Your task to perform on an android device: change timer sound Image 0: 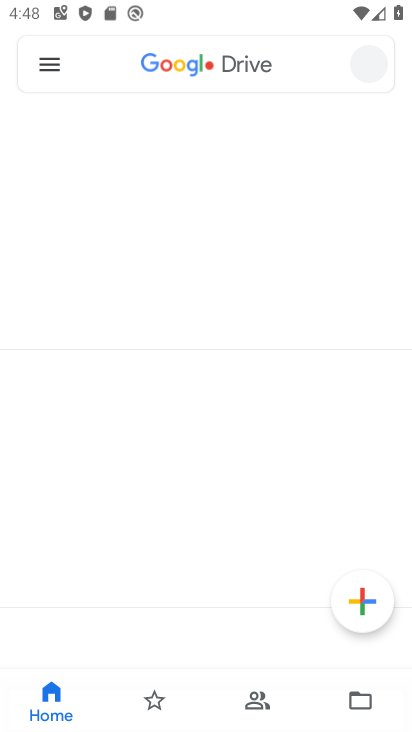
Step 0: drag from (257, 641) to (306, 86)
Your task to perform on an android device: change timer sound Image 1: 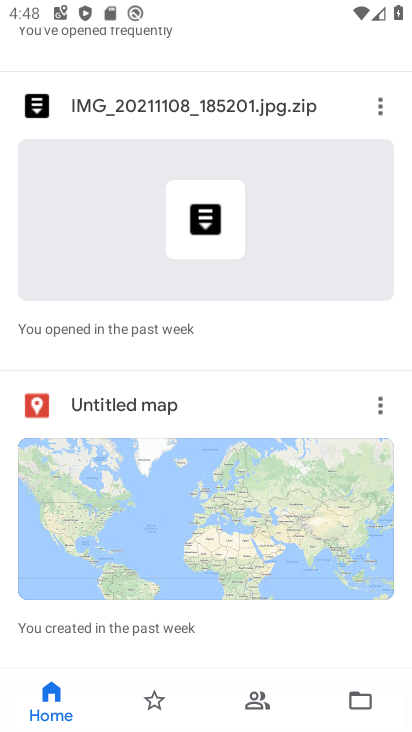
Step 1: press home button
Your task to perform on an android device: change timer sound Image 2: 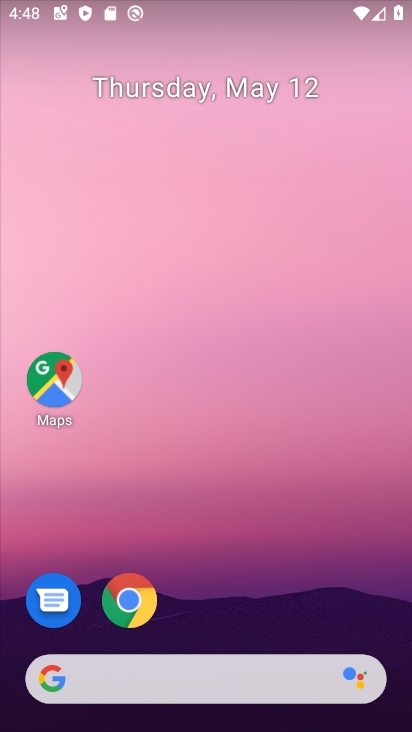
Step 2: drag from (213, 630) to (267, 178)
Your task to perform on an android device: change timer sound Image 3: 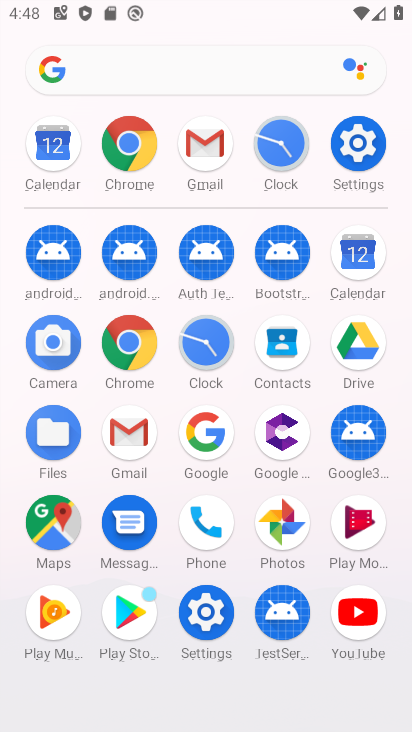
Step 3: click (199, 338)
Your task to perform on an android device: change timer sound Image 4: 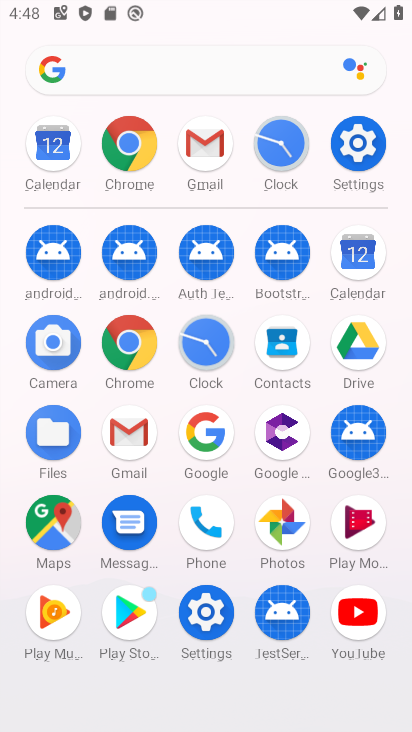
Step 4: click (198, 338)
Your task to perform on an android device: change timer sound Image 5: 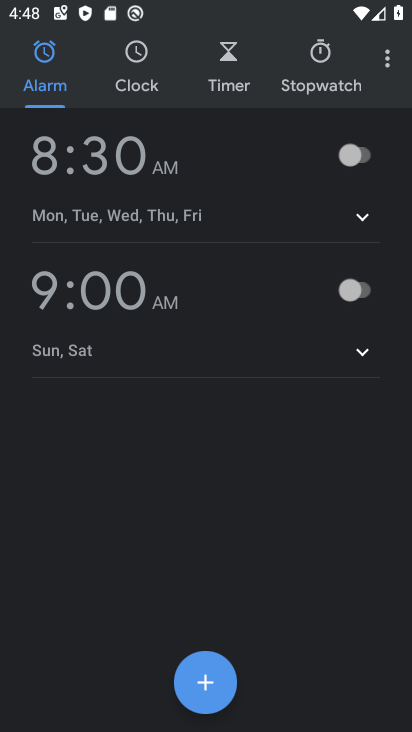
Step 5: click (386, 63)
Your task to perform on an android device: change timer sound Image 6: 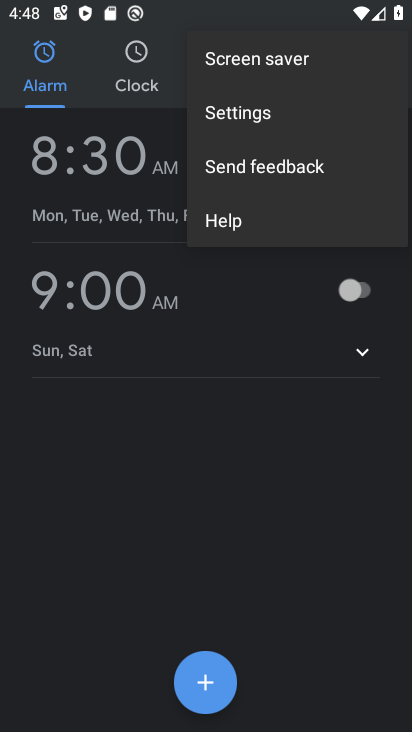
Step 6: click (258, 126)
Your task to perform on an android device: change timer sound Image 7: 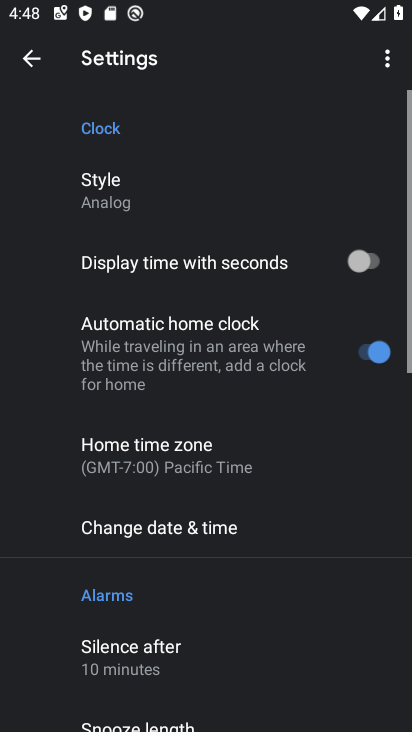
Step 7: drag from (229, 641) to (204, 250)
Your task to perform on an android device: change timer sound Image 8: 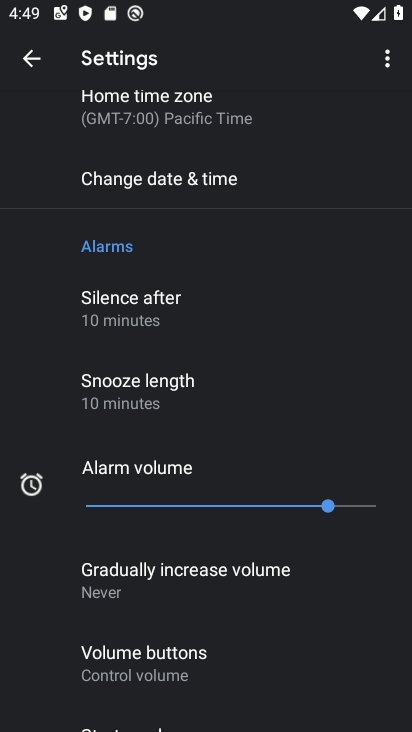
Step 8: drag from (222, 290) to (341, 713)
Your task to perform on an android device: change timer sound Image 9: 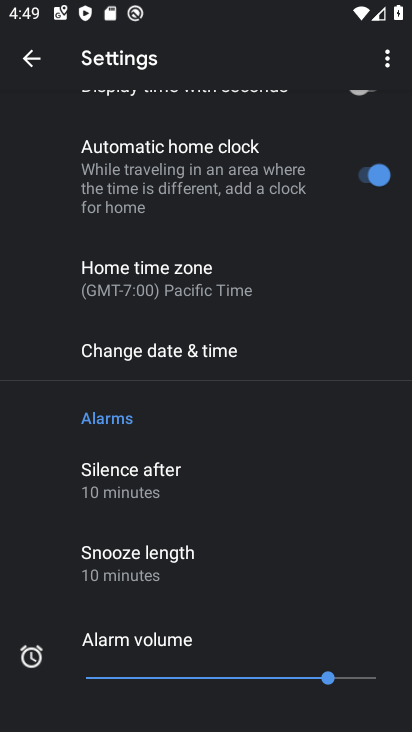
Step 9: drag from (275, 614) to (299, 105)
Your task to perform on an android device: change timer sound Image 10: 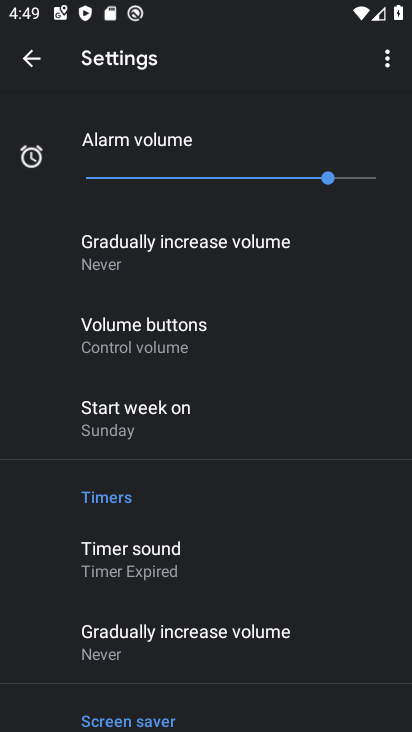
Step 10: click (173, 560)
Your task to perform on an android device: change timer sound Image 11: 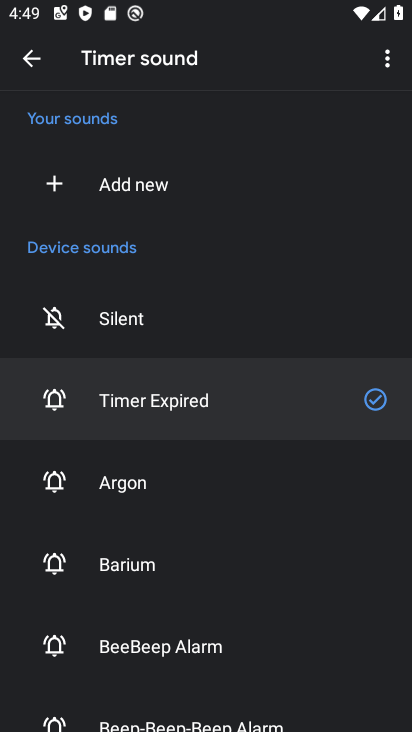
Step 11: click (173, 568)
Your task to perform on an android device: change timer sound Image 12: 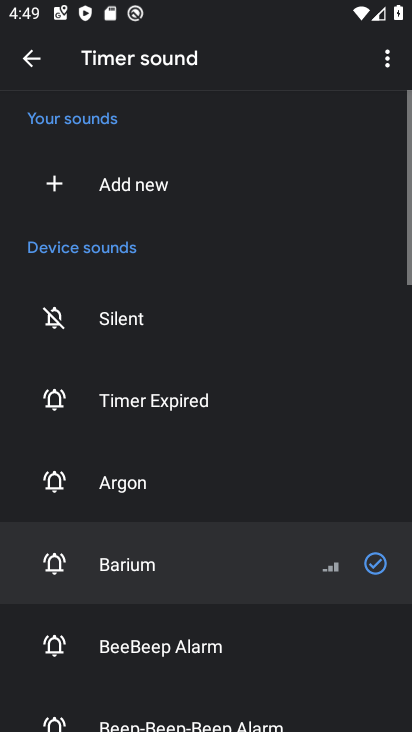
Step 12: task complete